Your task to perform on an android device: Open the map Image 0: 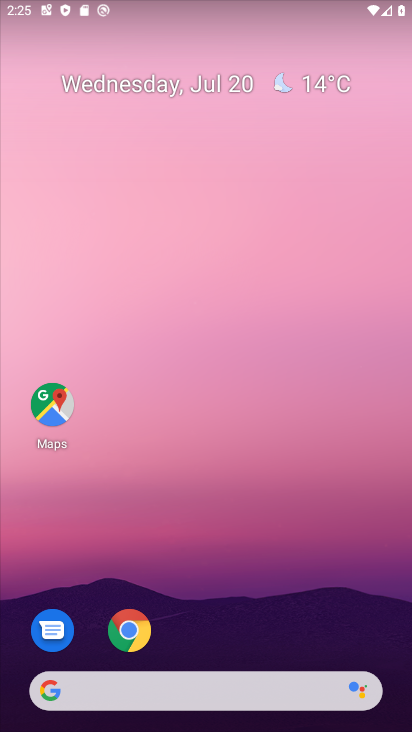
Step 0: press home button
Your task to perform on an android device: Open the map Image 1: 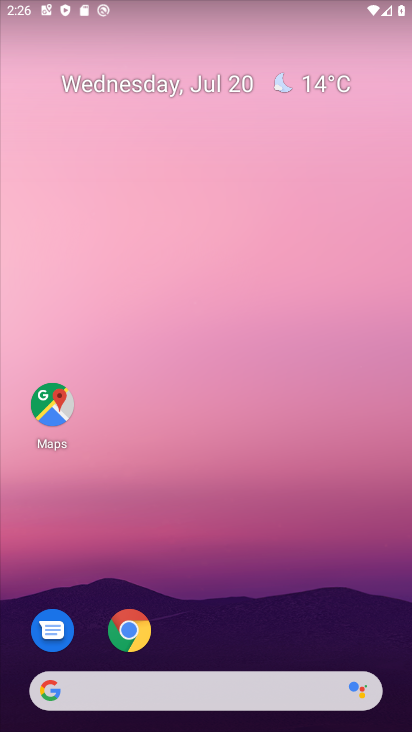
Step 1: click (44, 411)
Your task to perform on an android device: Open the map Image 2: 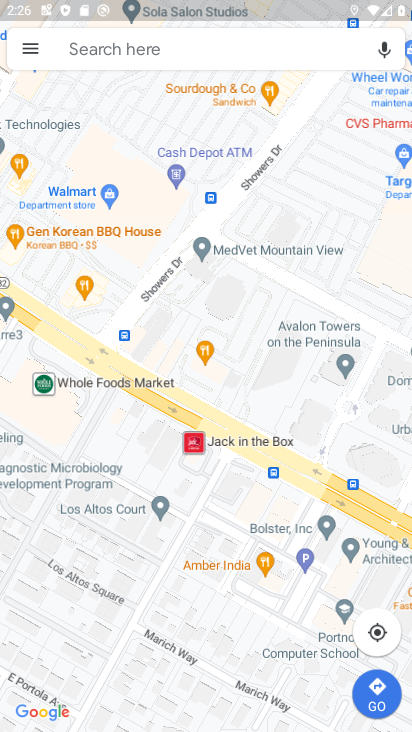
Step 2: click (380, 638)
Your task to perform on an android device: Open the map Image 3: 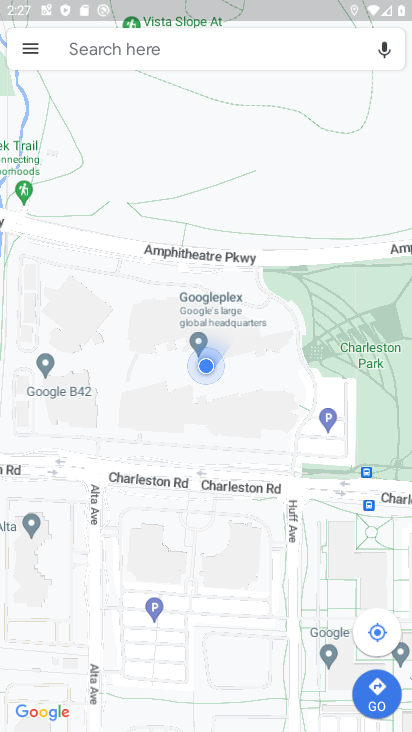
Step 3: task complete